Your task to perform on an android device: toggle translation in the chrome app Image 0: 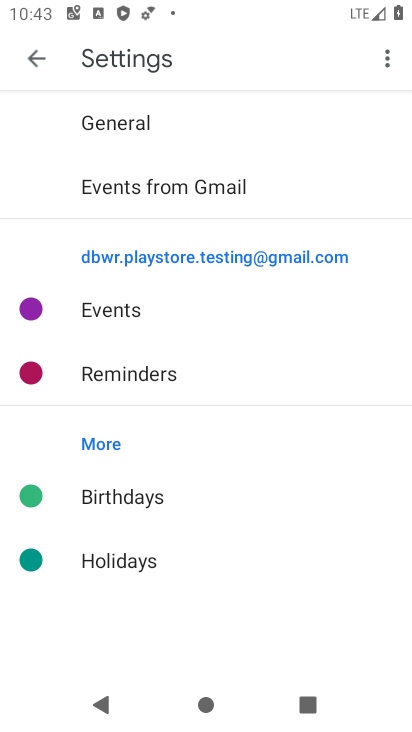
Step 0: press home button
Your task to perform on an android device: toggle translation in the chrome app Image 1: 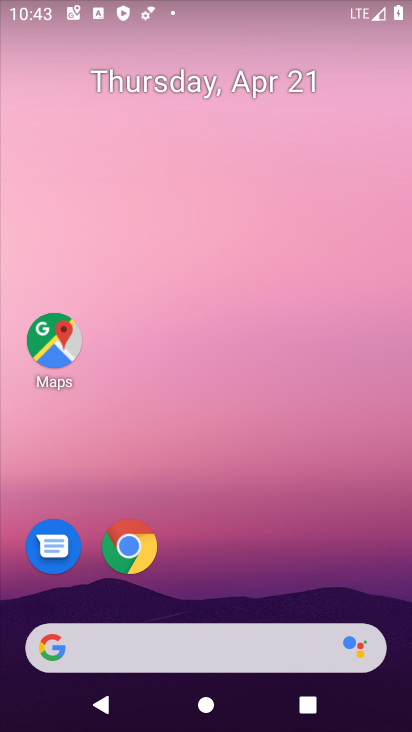
Step 1: click (127, 542)
Your task to perform on an android device: toggle translation in the chrome app Image 2: 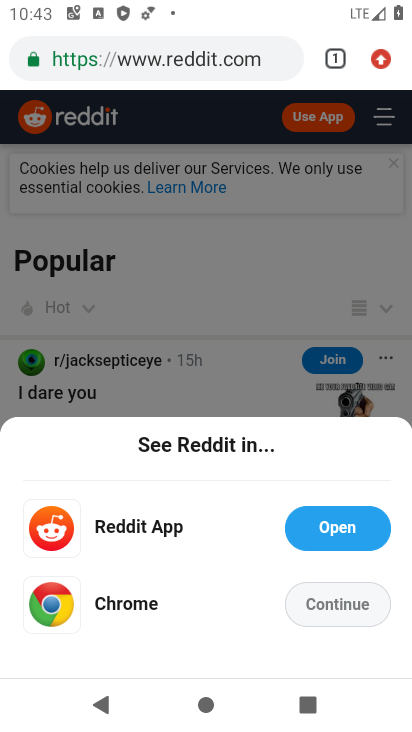
Step 2: click (377, 64)
Your task to perform on an android device: toggle translation in the chrome app Image 3: 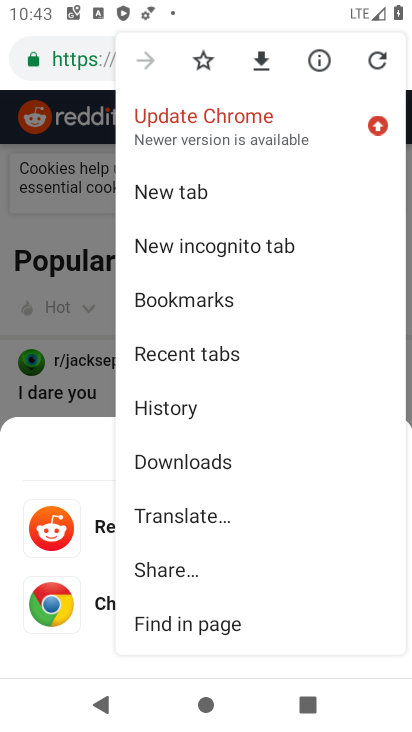
Step 3: drag from (270, 600) to (281, 313)
Your task to perform on an android device: toggle translation in the chrome app Image 4: 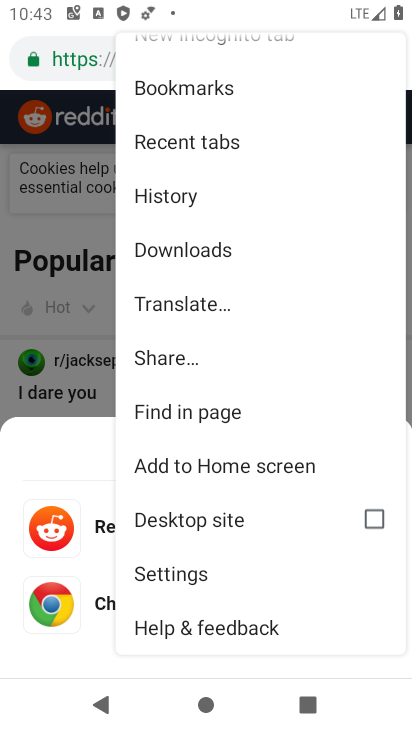
Step 4: click (151, 578)
Your task to perform on an android device: toggle translation in the chrome app Image 5: 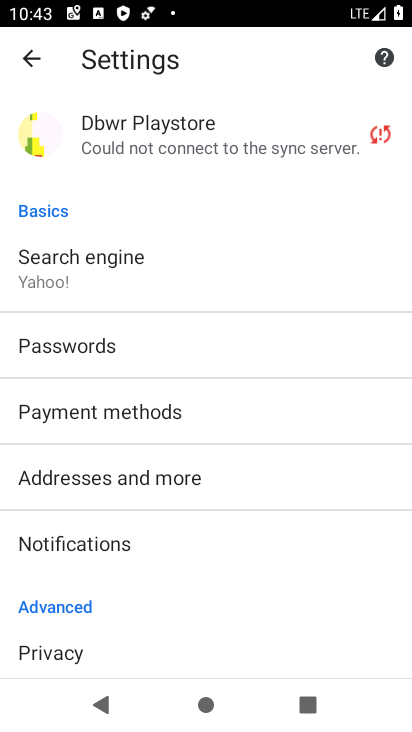
Step 5: drag from (201, 617) to (154, 387)
Your task to perform on an android device: toggle translation in the chrome app Image 6: 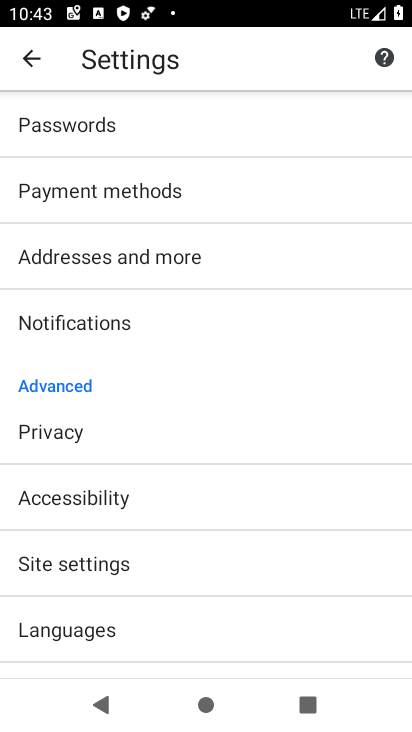
Step 6: click (69, 630)
Your task to perform on an android device: toggle translation in the chrome app Image 7: 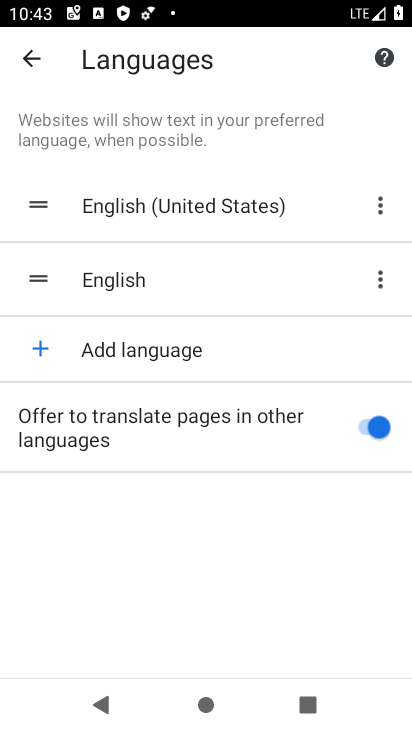
Step 7: click (366, 419)
Your task to perform on an android device: toggle translation in the chrome app Image 8: 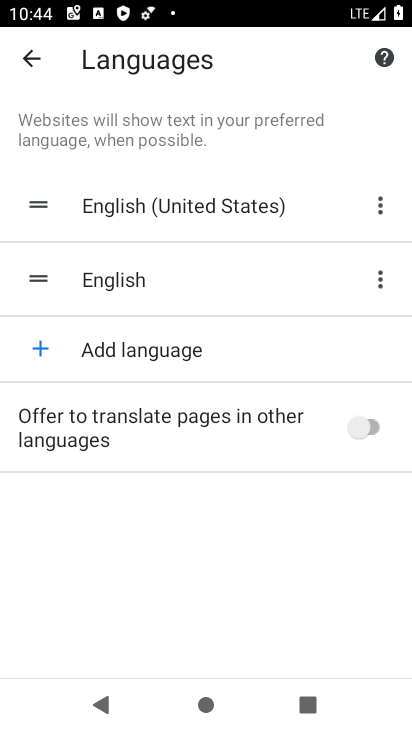
Step 8: task complete